Your task to perform on an android device: toggle notifications settings in the gmail app Image 0: 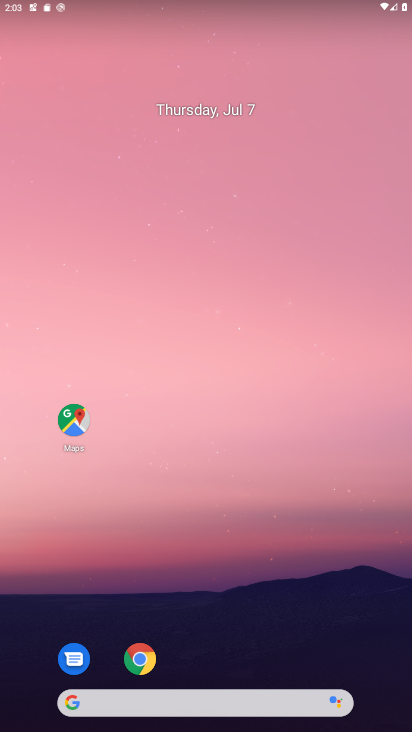
Step 0: drag from (195, 664) to (301, 81)
Your task to perform on an android device: toggle notifications settings in the gmail app Image 1: 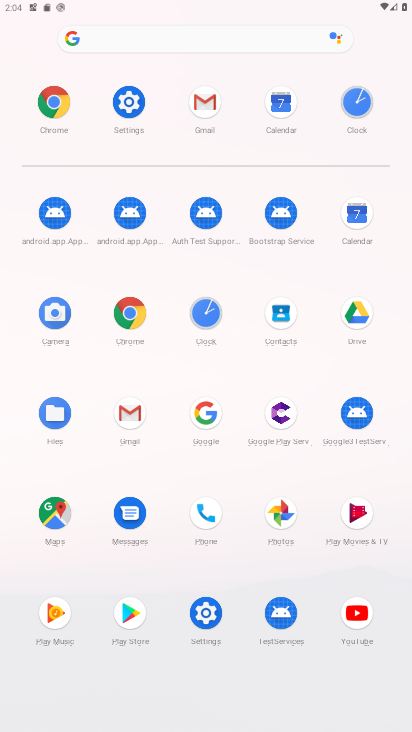
Step 1: click (128, 412)
Your task to perform on an android device: toggle notifications settings in the gmail app Image 2: 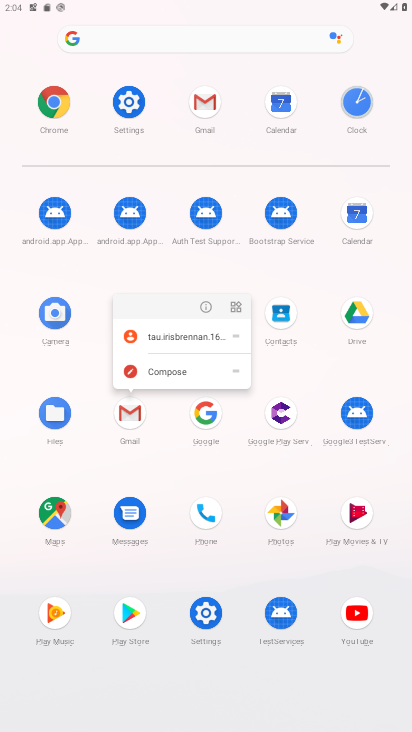
Step 2: click (204, 302)
Your task to perform on an android device: toggle notifications settings in the gmail app Image 3: 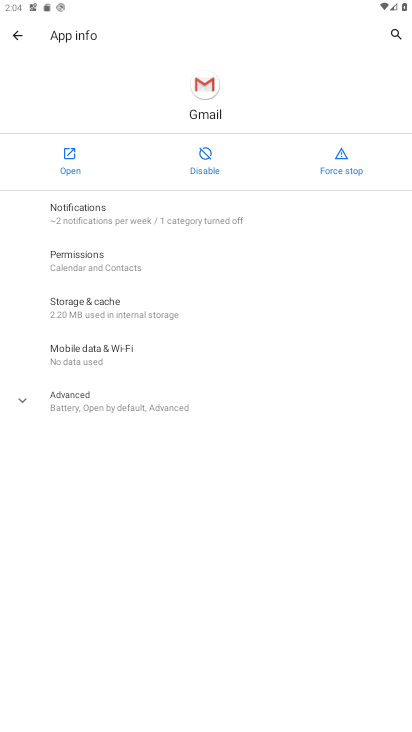
Step 3: click (67, 156)
Your task to perform on an android device: toggle notifications settings in the gmail app Image 4: 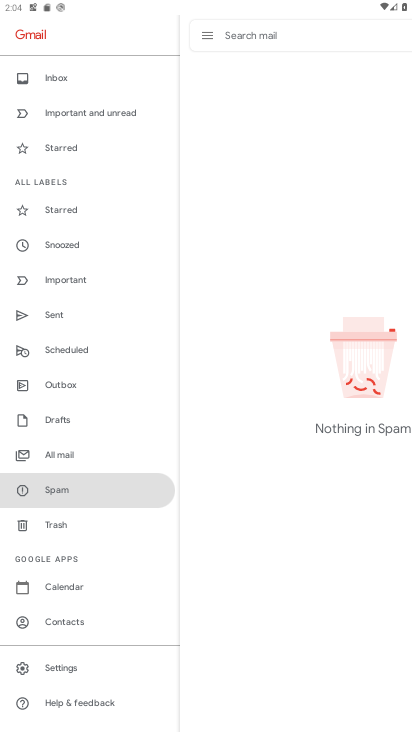
Step 4: drag from (83, 550) to (154, 189)
Your task to perform on an android device: toggle notifications settings in the gmail app Image 5: 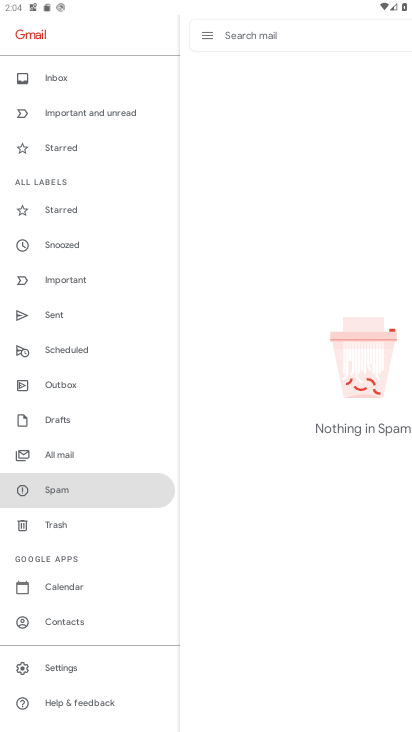
Step 5: drag from (109, 181) to (128, 709)
Your task to perform on an android device: toggle notifications settings in the gmail app Image 6: 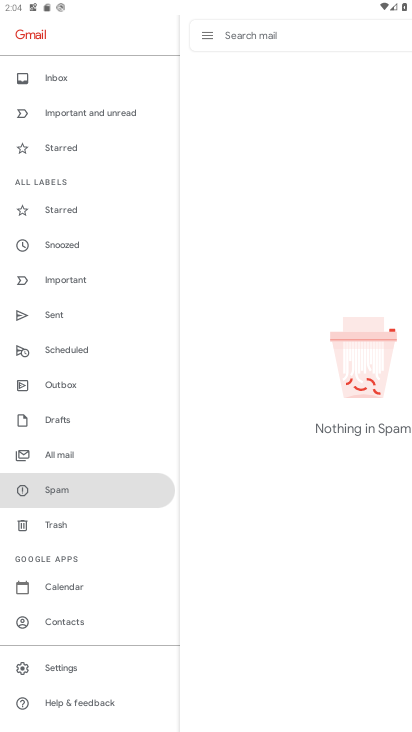
Step 6: click (70, 674)
Your task to perform on an android device: toggle notifications settings in the gmail app Image 7: 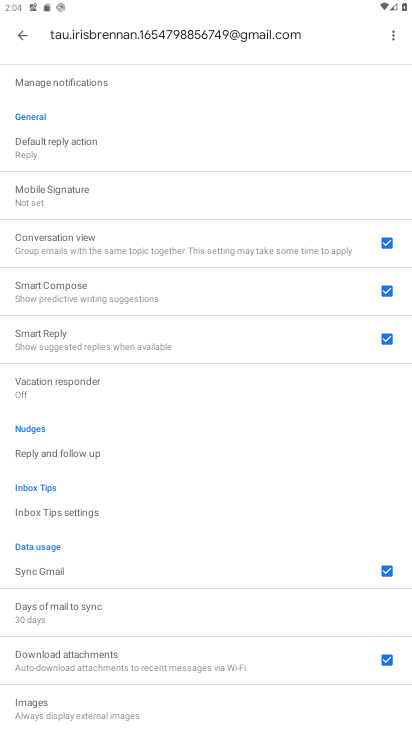
Step 7: drag from (96, 569) to (123, 269)
Your task to perform on an android device: toggle notifications settings in the gmail app Image 8: 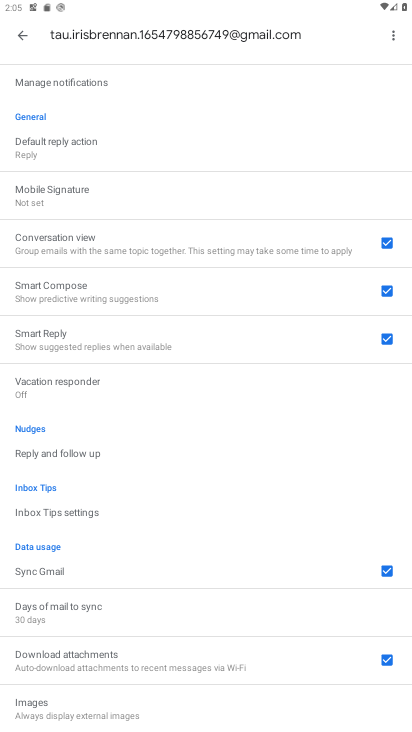
Step 8: drag from (129, 548) to (193, 260)
Your task to perform on an android device: toggle notifications settings in the gmail app Image 9: 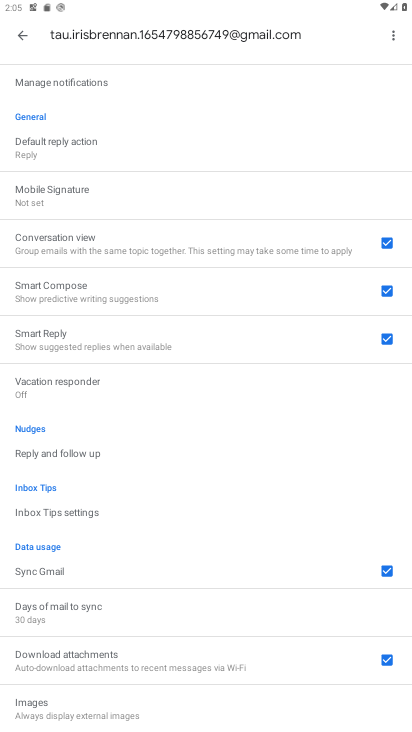
Step 9: drag from (194, 613) to (245, 327)
Your task to perform on an android device: toggle notifications settings in the gmail app Image 10: 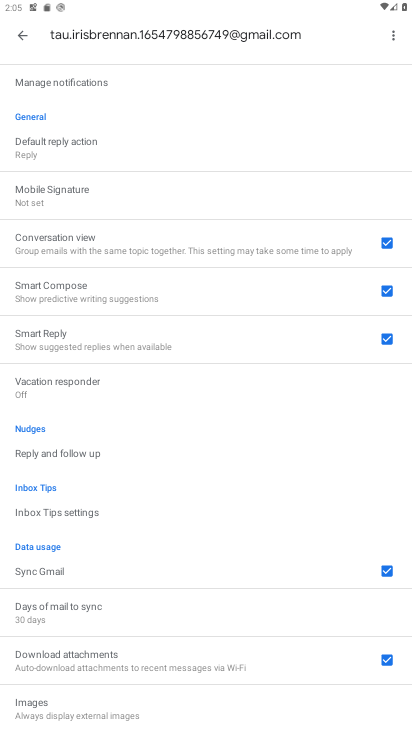
Step 10: drag from (190, 640) to (214, 358)
Your task to perform on an android device: toggle notifications settings in the gmail app Image 11: 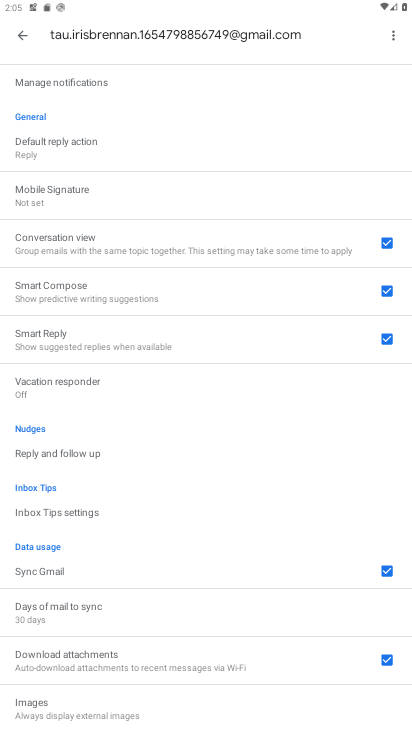
Step 11: click (164, 87)
Your task to perform on an android device: toggle notifications settings in the gmail app Image 12: 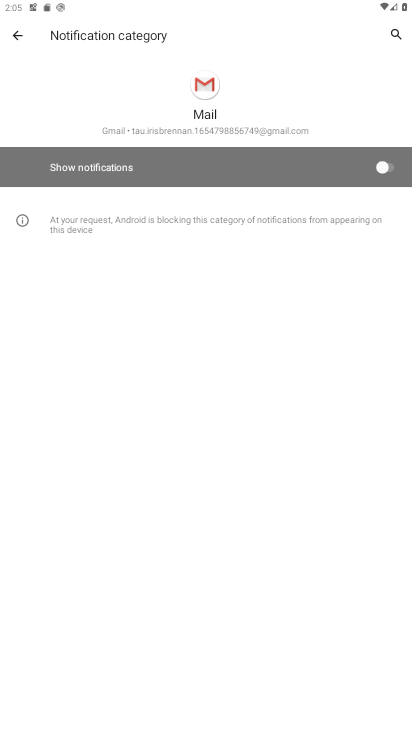
Step 12: drag from (226, 516) to (192, 56)
Your task to perform on an android device: toggle notifications settings in the gmail app Image 13: 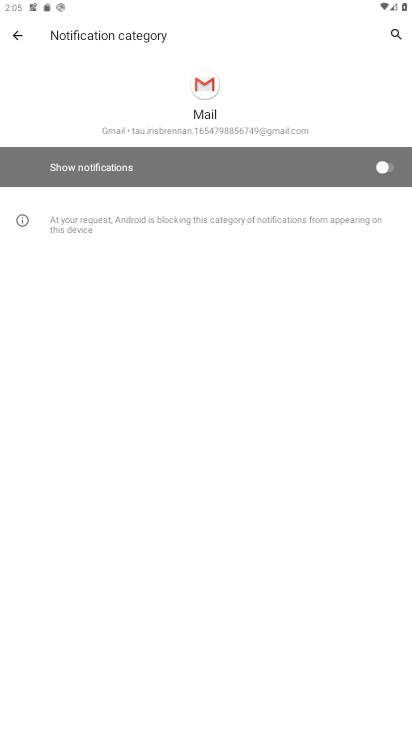
Step 13: click (364, 167)
Your task to perform on an android device: toggle notifications settings in the gmail app Image 14: 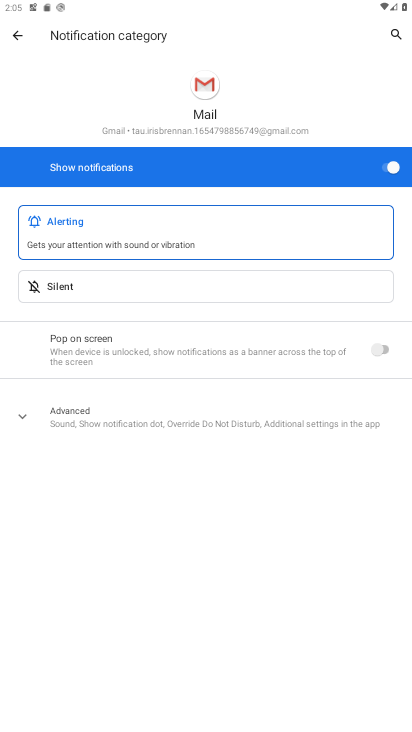
Step 14: task complete